Your task to perform on an android device: turn off priority inbox in the gmail app Image 0: 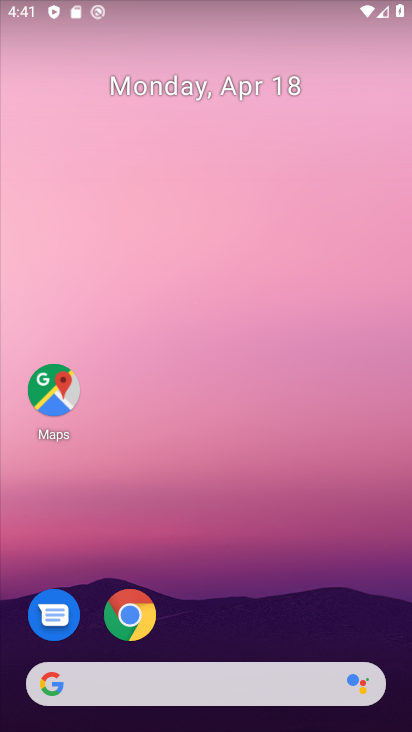
Step 0: drag from (295, 539) to (310, 77)
Your task to perform on an android device: turn off priority inbox in the gmail app Image 1: 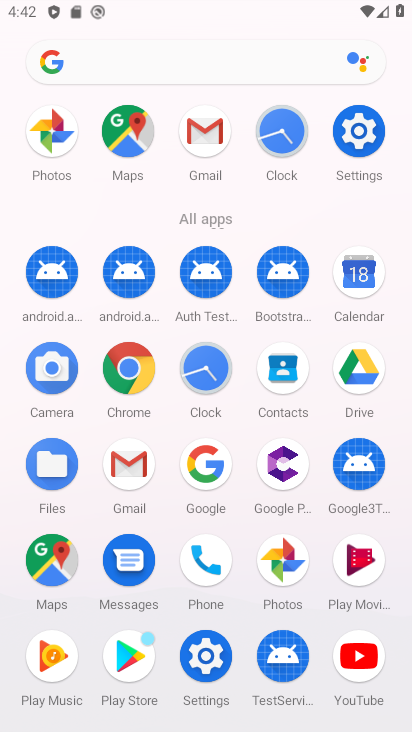
Step 1: click (134, 454)
Your task to perform on an android device: turn off priority inbox in the gmail app Image 2: 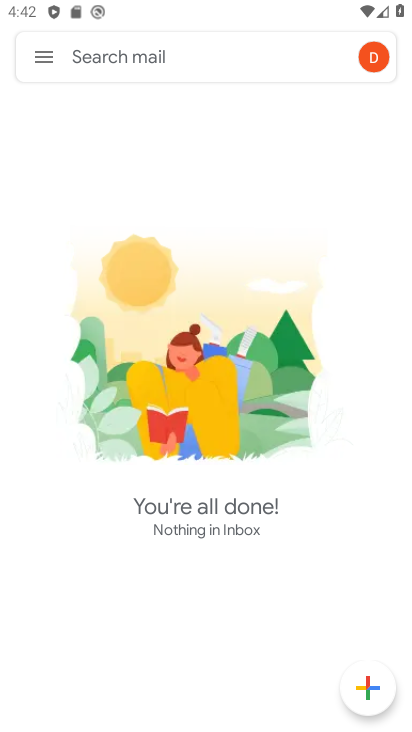
Step 2: click (38, 53)
Your task to perform on an android device: turn off priority inbox in the gmail app Image 3: 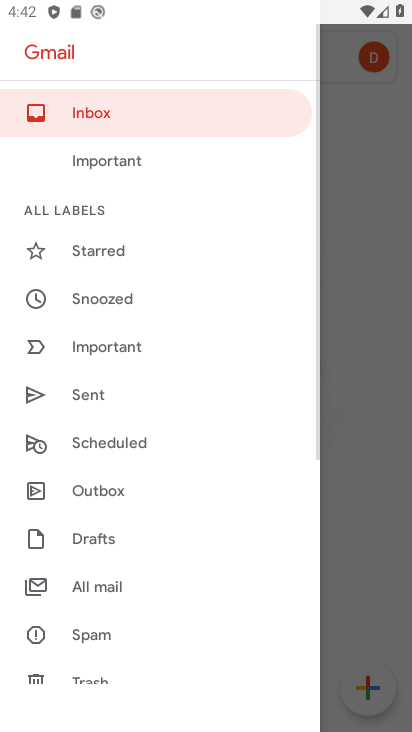
Step 3: drag from (187, 539) to (208, 192)
Your task to perform on an android device: turn off priority inbox in the gmail app Image 4: 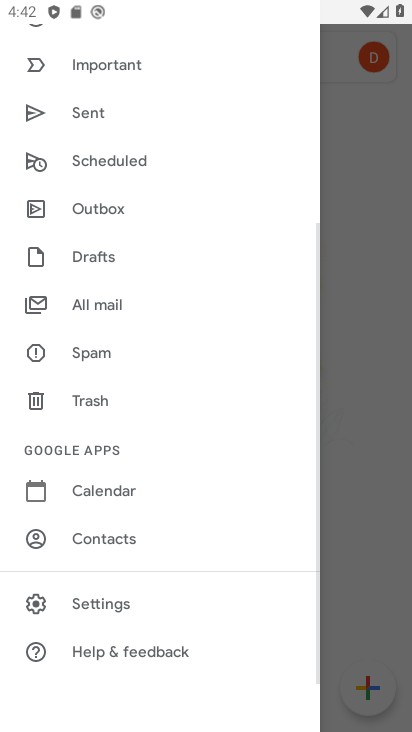
Step 4: click (102, 594)
Your task to perform on an android device: turn off priority inbox in the gmail app Image 5: 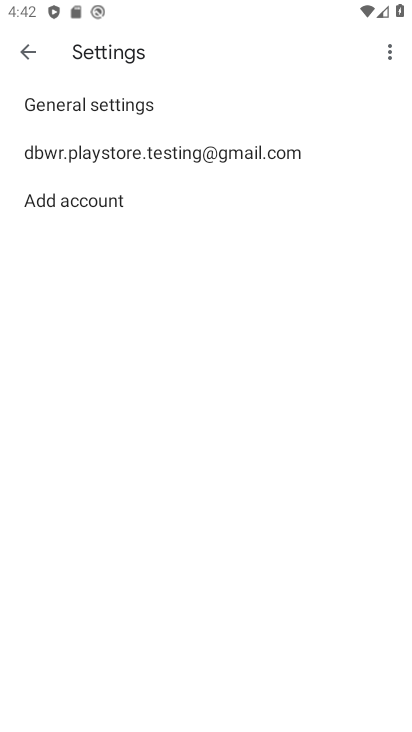
Step 5: click (151, 150)
Your task to perform on an android device: turn off priority inbox in the gmail app Image 6: 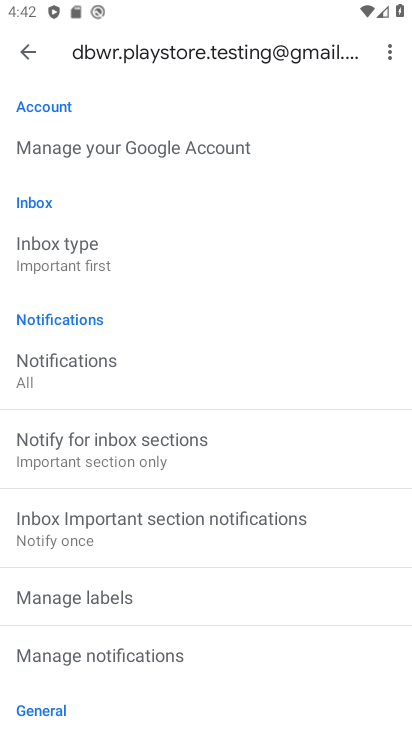
Step 6: click (79, 253)
Your task to perform on an android device: turn off priority inbox in the gmail app Image 7: 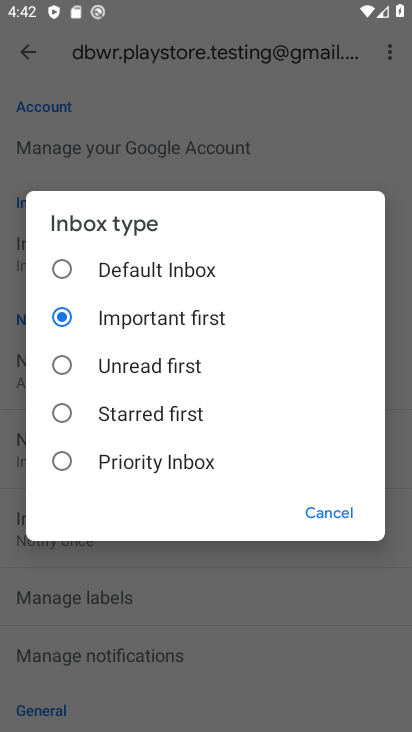
Step 7: click (130, 267)
Your task to perform on an android device: turn off priority inbox in the gmail app Image 8: 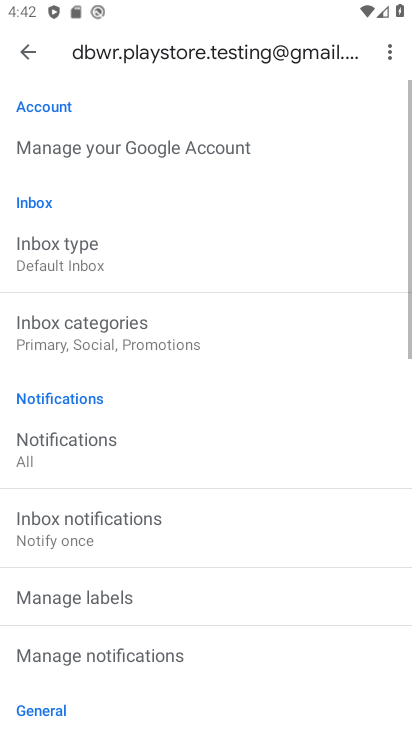
Step 8: task complete